Your task to perform on an android device: Open Chrome and go to settings Image 0: 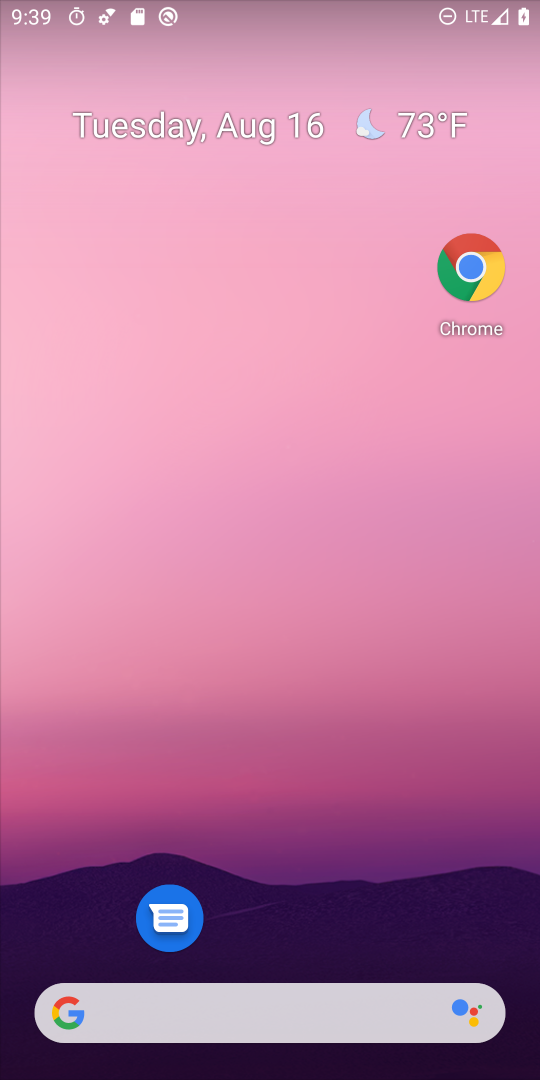
Step 0: drag from (176, 984) to (288, 224)
Your task to perform on an android device: Open Chrome and go to settings Image 1: 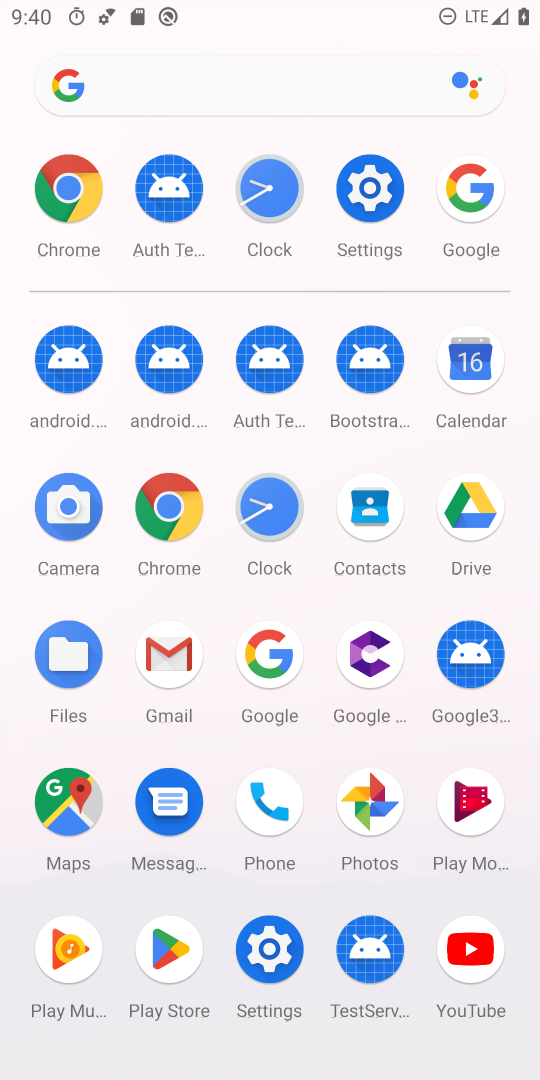
Step 1: click (76, 200)
Your task to perform on an android device: Open Chrome and go to settings Image 2: 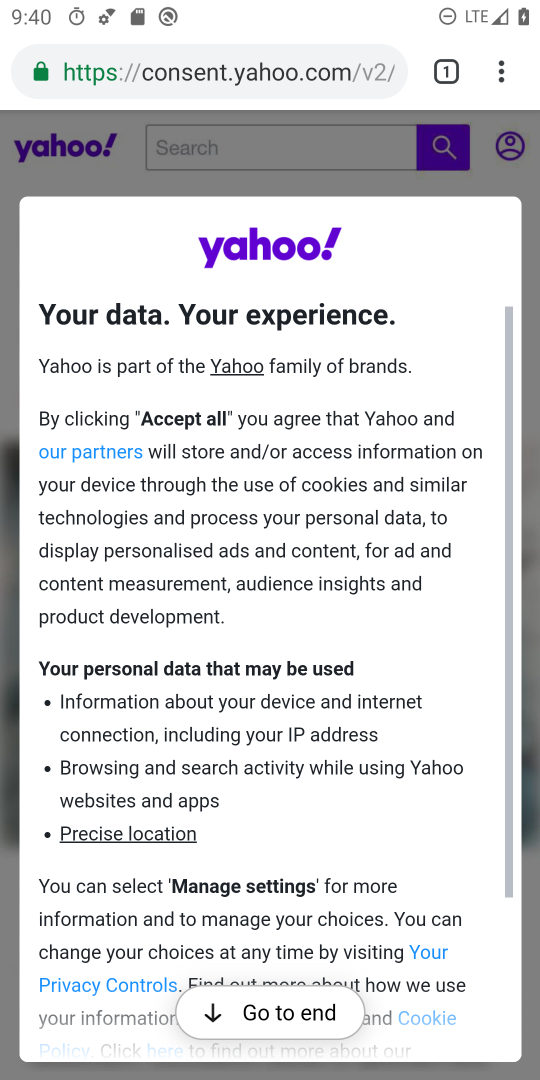
Step 2: click (507, 81)
Your task to perform on an android device: Open Chrome and go to settings Image 3: 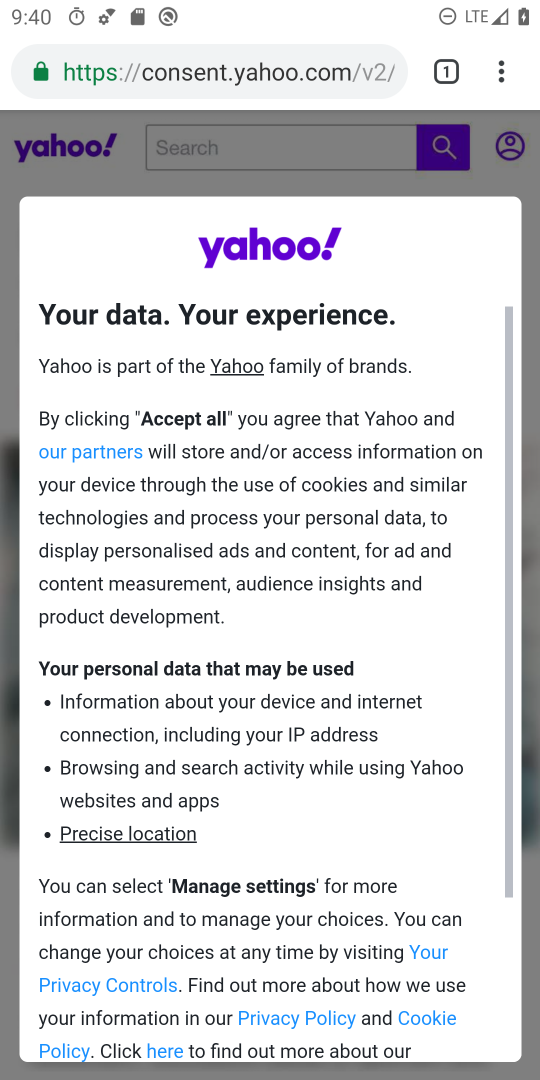
Step 3: click (502, 76)
Your task to perform on an android device: Open Chrome and go to settings Image 4: 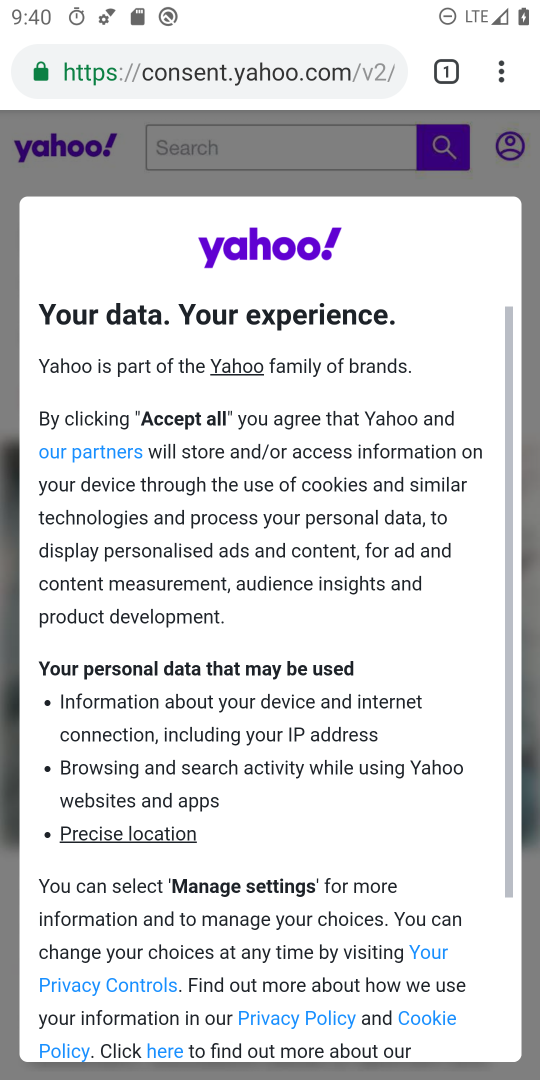
Step 4: click (510, 68)
Your task to perform on an android device: Open Chrome and go to settings Image 5: 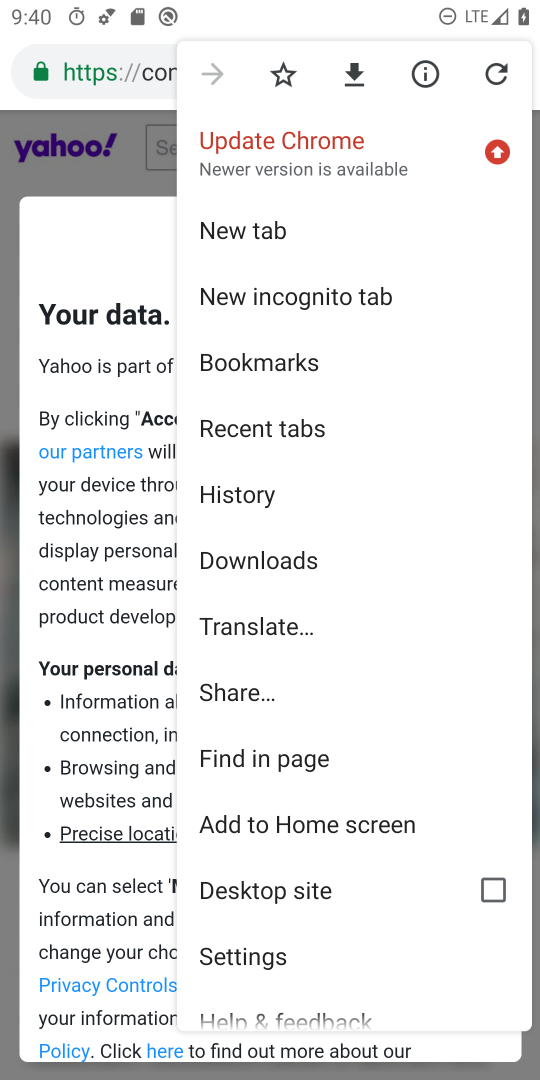
Step 5: click (240, 945)
Your task to perform on an android device: Open Chrome and go to settings Image 6: 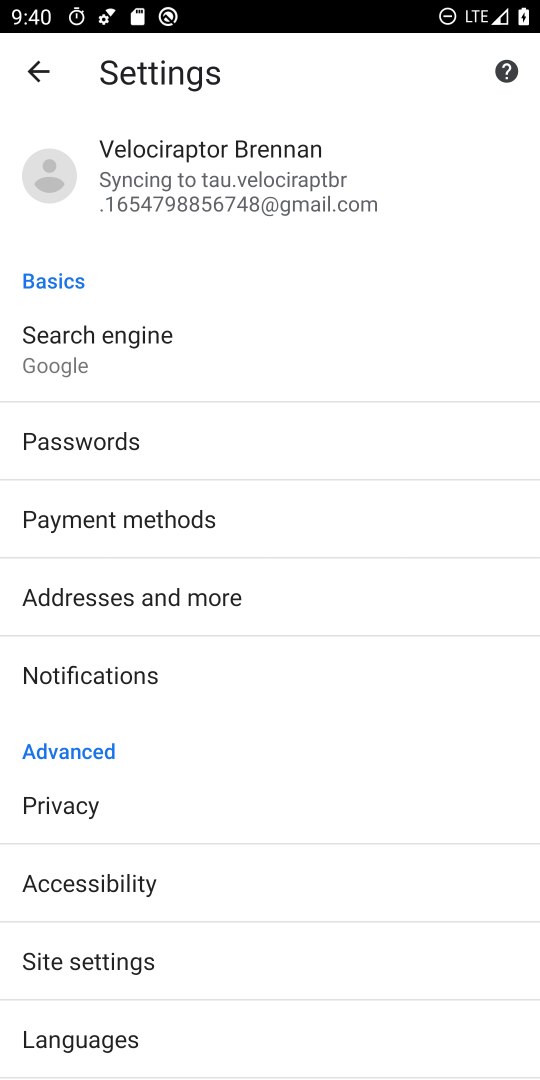
Step 6: task complete